Your task to perform on an android device: turn off priority inbox in the gmail app Image 0: 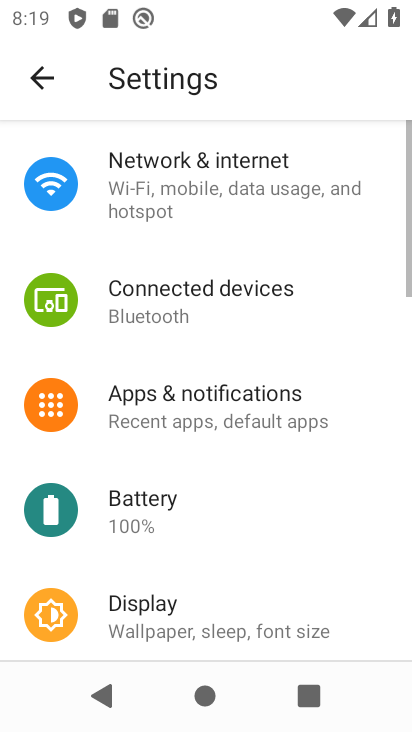
Step 0: press home button
Your task to perform on an android device: turn off priority inbox in the gmail app Image 1: 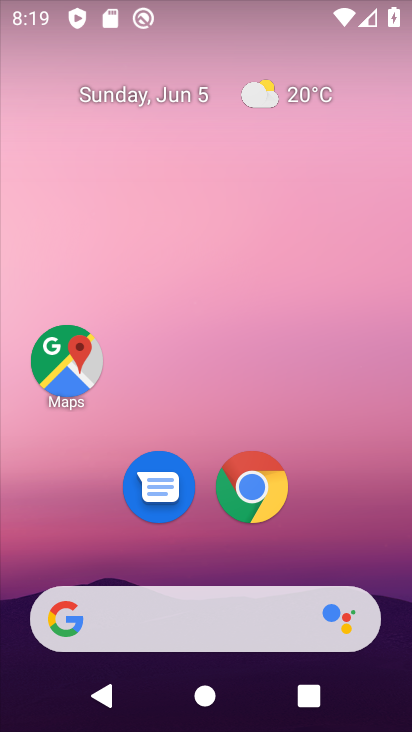
Step 1: drag from (301, 551) to (309, 195)
Your task to perform on an android device: turn off priority inbox in the gmail app Image 2: 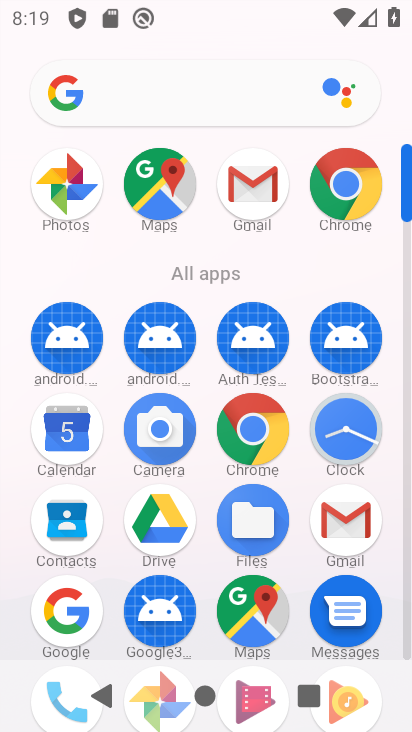
Step 2: click (357, 547)
Your task to perform on an android device: turn off priority inbox in the gmail app Image 3: 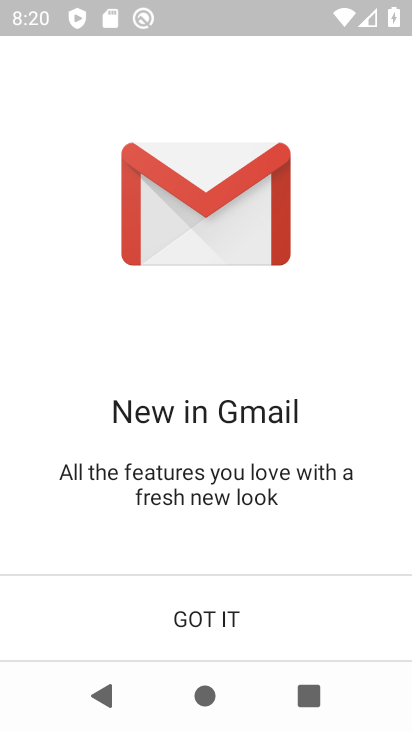
Step 3: click (179, 600)
Your task to perform on an android device: turn off priority inbox in the gmail app Image 4: 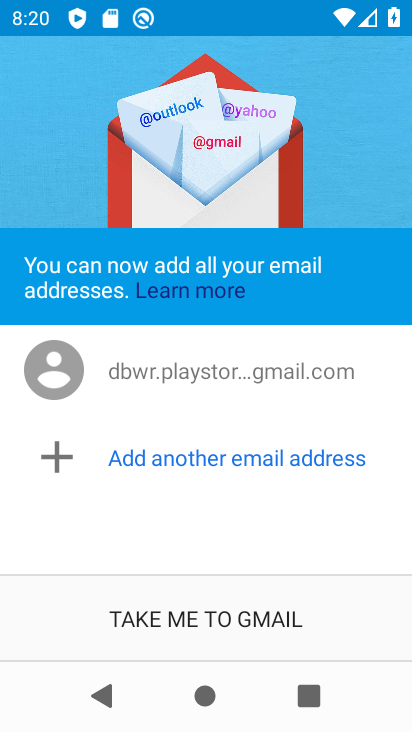
Step 4: click (178, 611)
Your task to perform on an android device: turn off priority inbox in the gmail app Image 5: 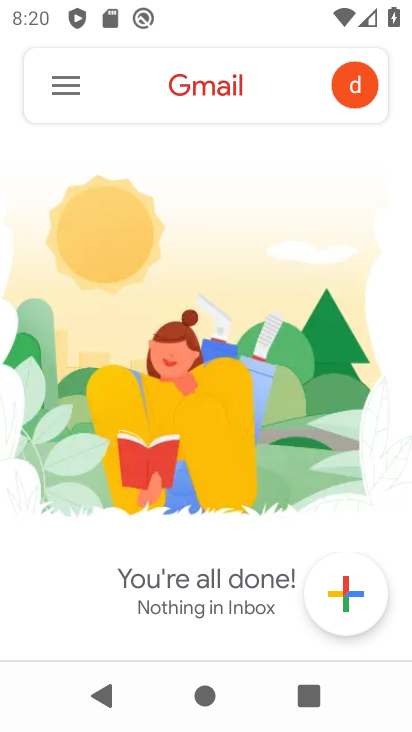
Step 5: click (58, 79)
Your task to perform on an android device: turn off priority inbox in the gmail app Image 6: 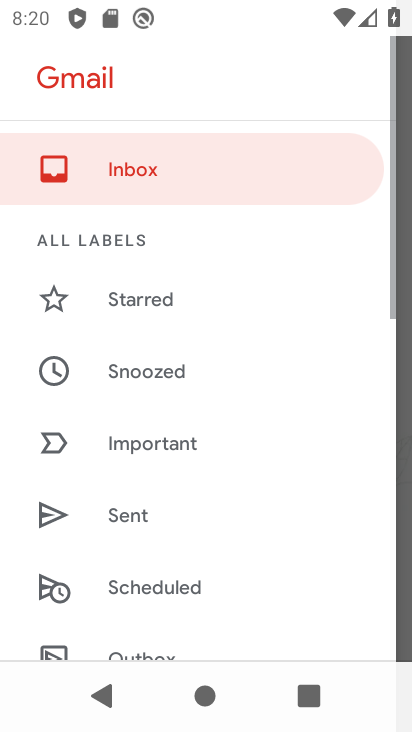
Step 6: drag from (175, 631) to (218, 212)
Your task to perform on an android device: turn off priority inbox in the gmail app Image 7: 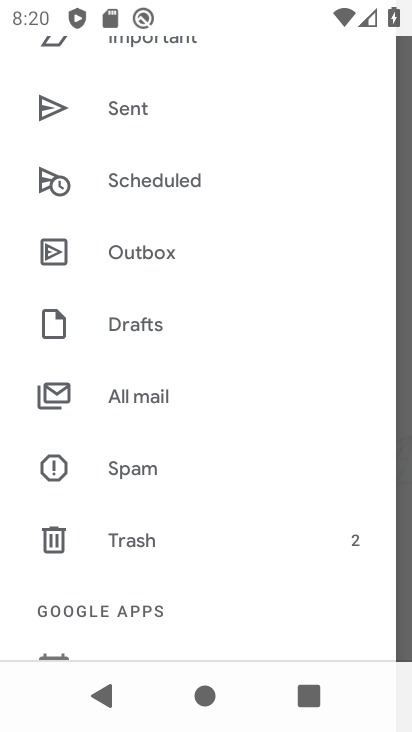
Step 7: drag from (184, 576) to (210, 169)
Your task to perform on an android device: turn off priority inbox in the gmail app Image 8: 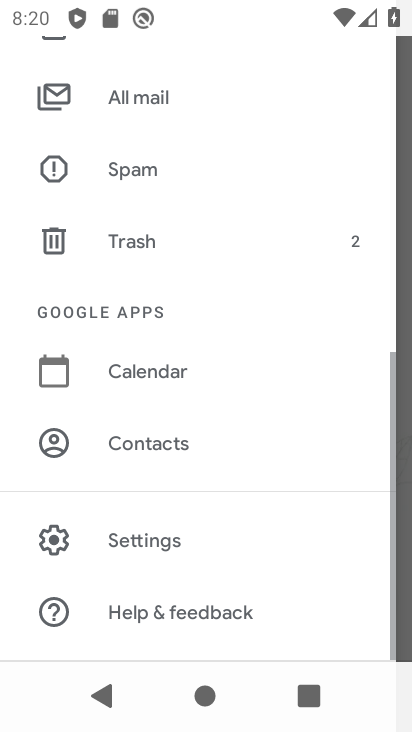
Step 8: click (188, 523)
Your task to perform on an android device: turn off priority inbox in the gmail app Image 9: 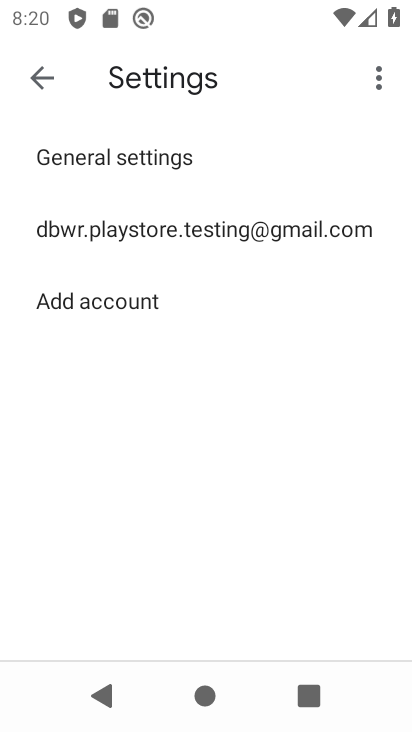
Step 9: click (119, 224)
Your task to perform on an android device: turn off priority inbox in the gmail app Image 10: 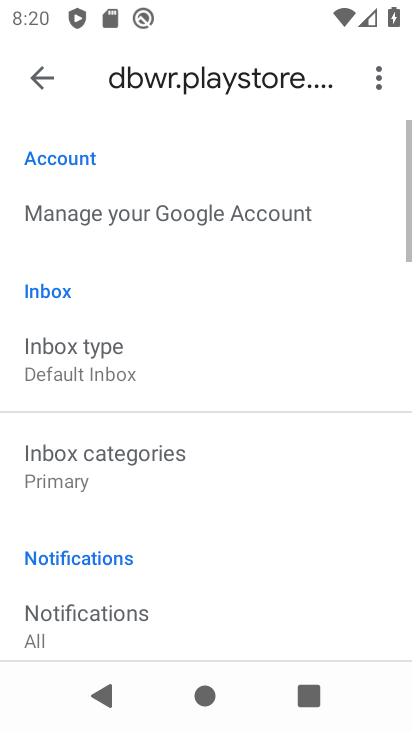
Step 10: click (107, 373)
Your task to perform on an android device: turn off priority inbox in the gmail app Image 11: 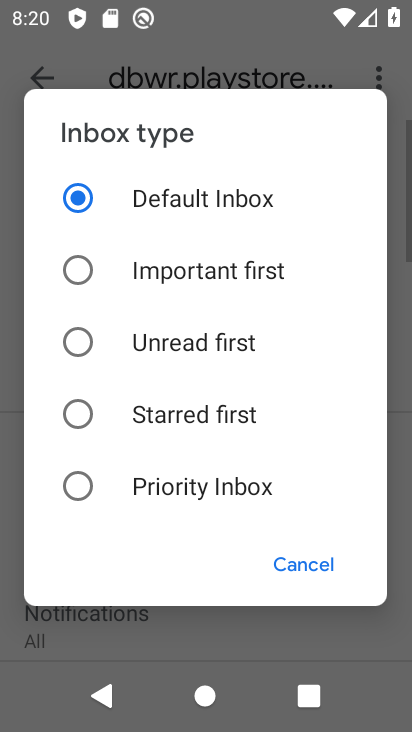
Step 11: click (141, 480)
Your task to perform on an android device: turn off priority inbox in the gmail app Image 12: 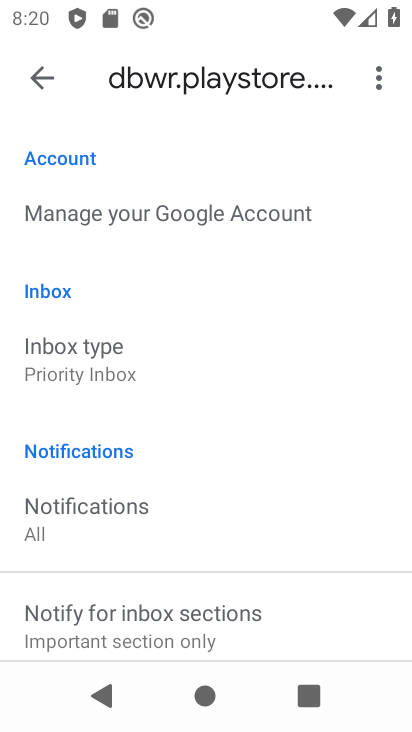
Step 12: task complete